Your task to perform on an android device: uninstall "Grab" Image 0: 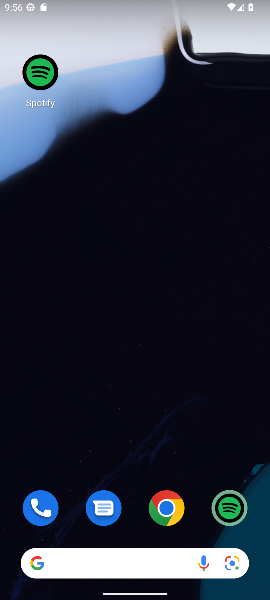
Step 0: drag from (251, 481) to (168, 13)
Your task to perform on an android device: uninstall "Grab" Image 1: 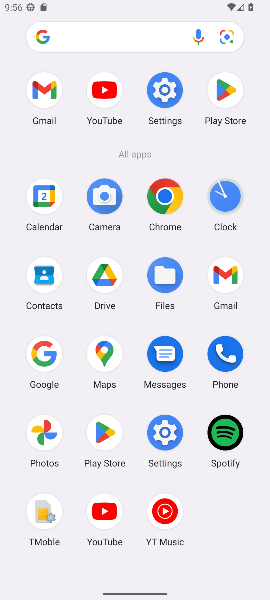
Step 1: click (104, 430)
Your task to perform on an android device: uninstall "Grab" Image 2: 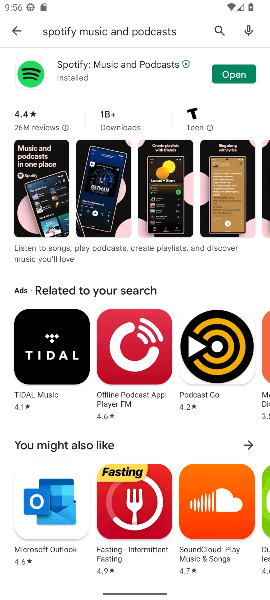
Step 2: click (217, 26)
Your task to perform on an android device: uninstall "Grab" Image 3: 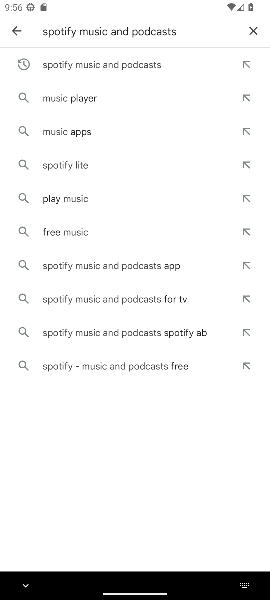
Step 3: click (249, 31)
Your task to perform on an android device: uninstall "Grab" Image 4: 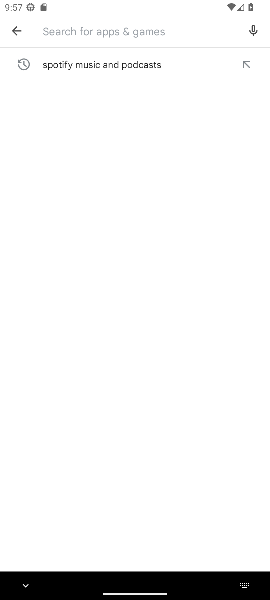
Step 4: type "Grab"
Your task to perform on an android device: uninstall "Grab" Image 5: 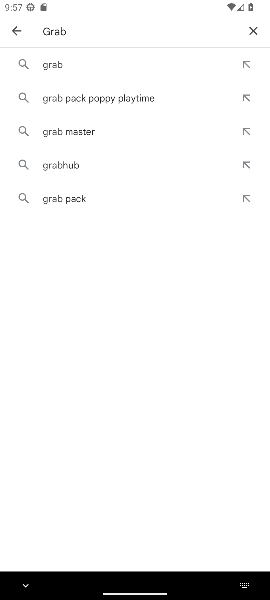
Step 5: click (59, 64)
Your task to perform on an android device: uninstall "Grab" Image 6: 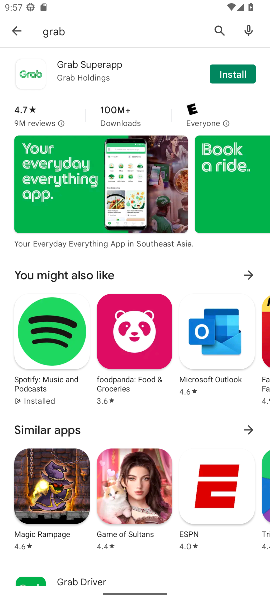
Step 6: click (230, 74)
Your task to perform on an android device: uninstall "Grab" Image 7: 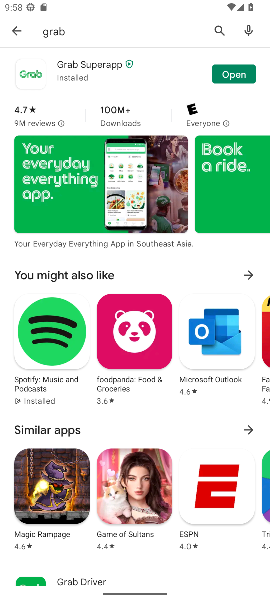
Step 7: press home button
Your task to perform on an android device: uninstall "Grab" Image 8: 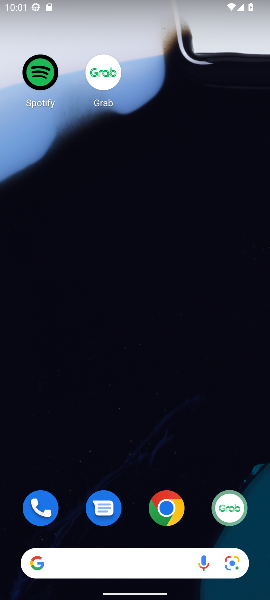
Step 8: drag from (232, 506) to (167, 555)
Your task to perform on an android device: uninstall "Grab" Image 9: 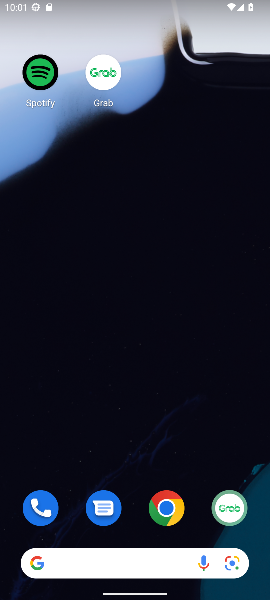
Step 9: drag from (98, 73) to (175, 45)
Your task to perform on an android device: uninstall "Grab" Image 10: 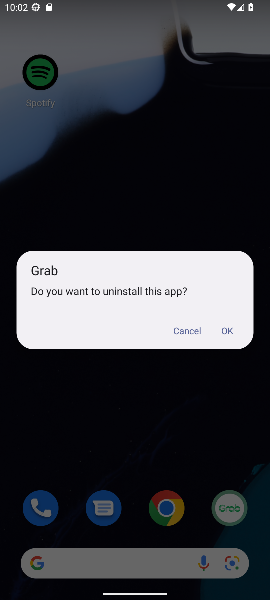
Step 10: click (225, 328)
Your task to perform on an android device: uninstall "Grab" Image 11: 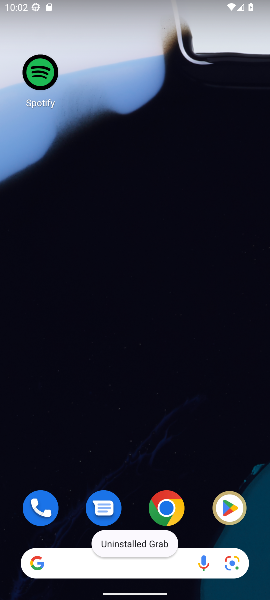
Step 11: task complete